Your task to perform on an android device: uninstall "Spotify: Music and Podcasts" Image 0: 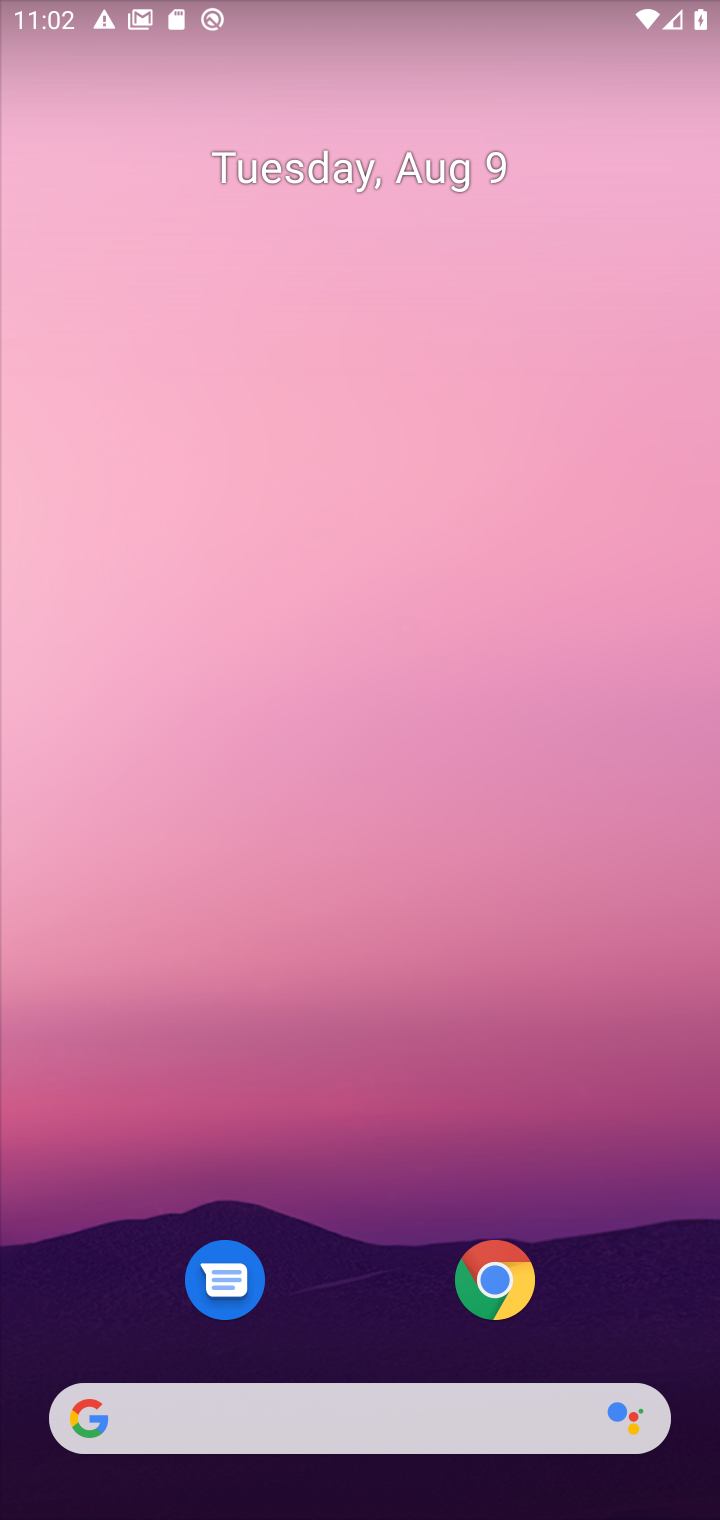
Step 0: drag from (431, 1332) to (382, 170)
Your task to perform on an android device: uninstall "Spotify: Music and Podcasts" Image 1: 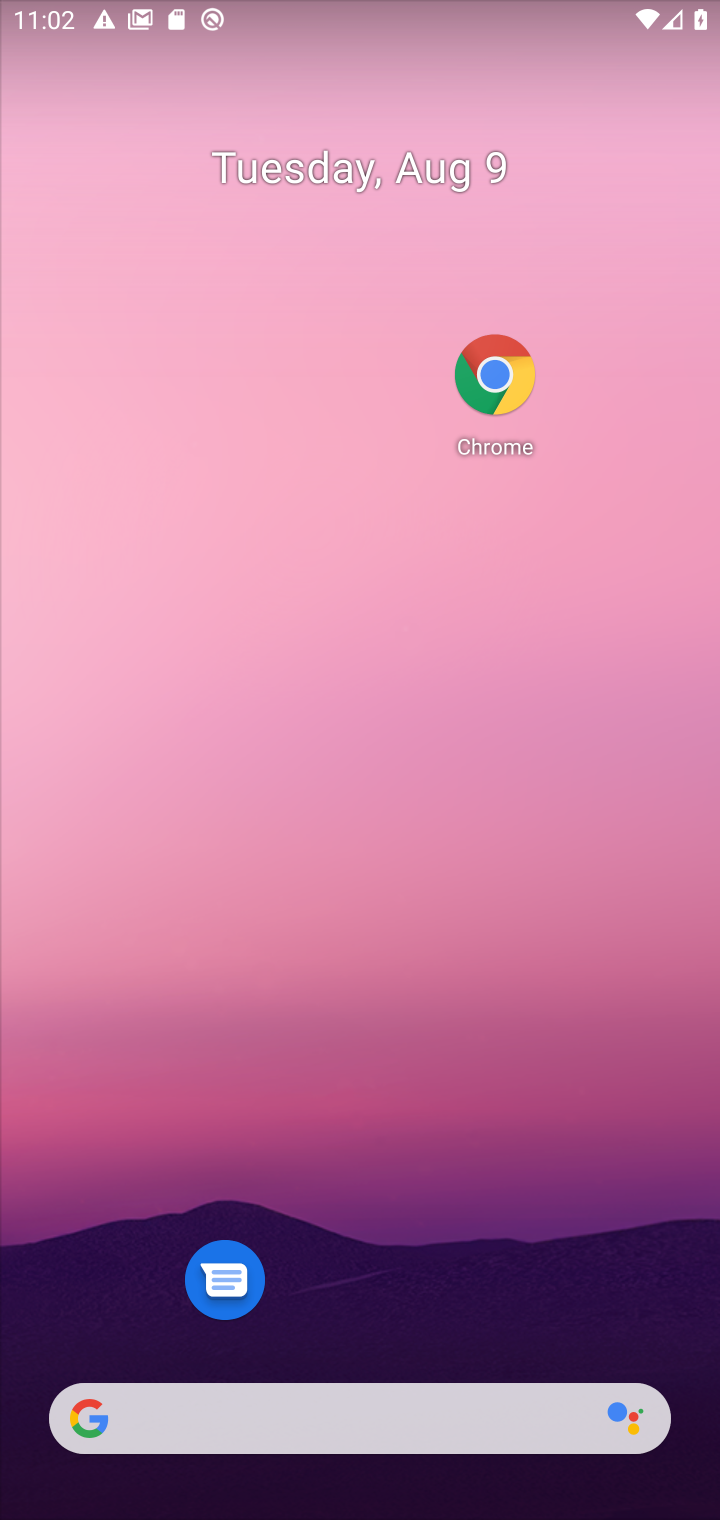
Step 1: drag from (420, 1306) to (328, 274)
Your task to perform on an android device: uninstall "Spotify: Music and Podcasts" Image 2: 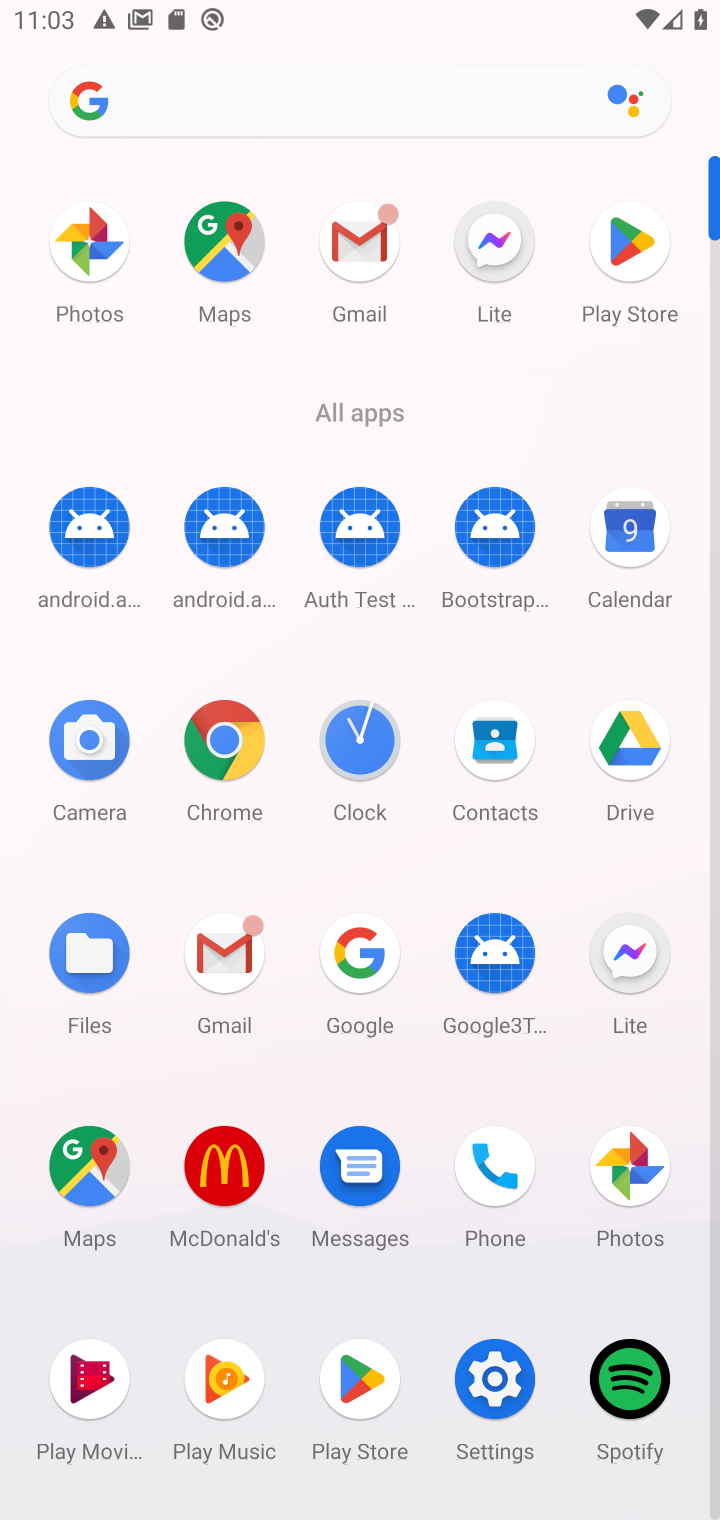
Step 2: click (643, 1386)
Your task to perform on an android device: uninstall "Spotify: Music and Podcasts" Image 3: 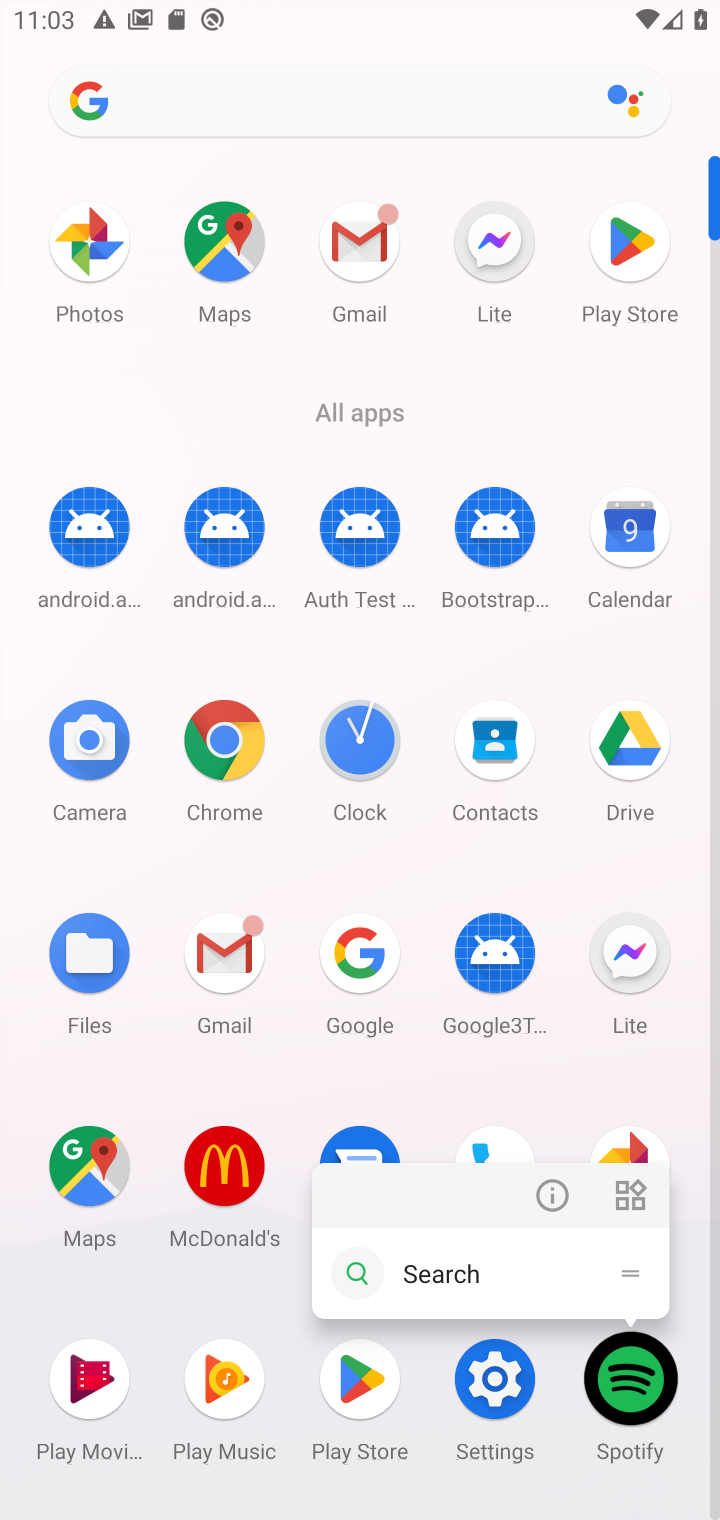
Step 3: click (534, 1195)
Your task to perform on an android device: uninstall "Spotify: Music and Podcasts" Image 4: 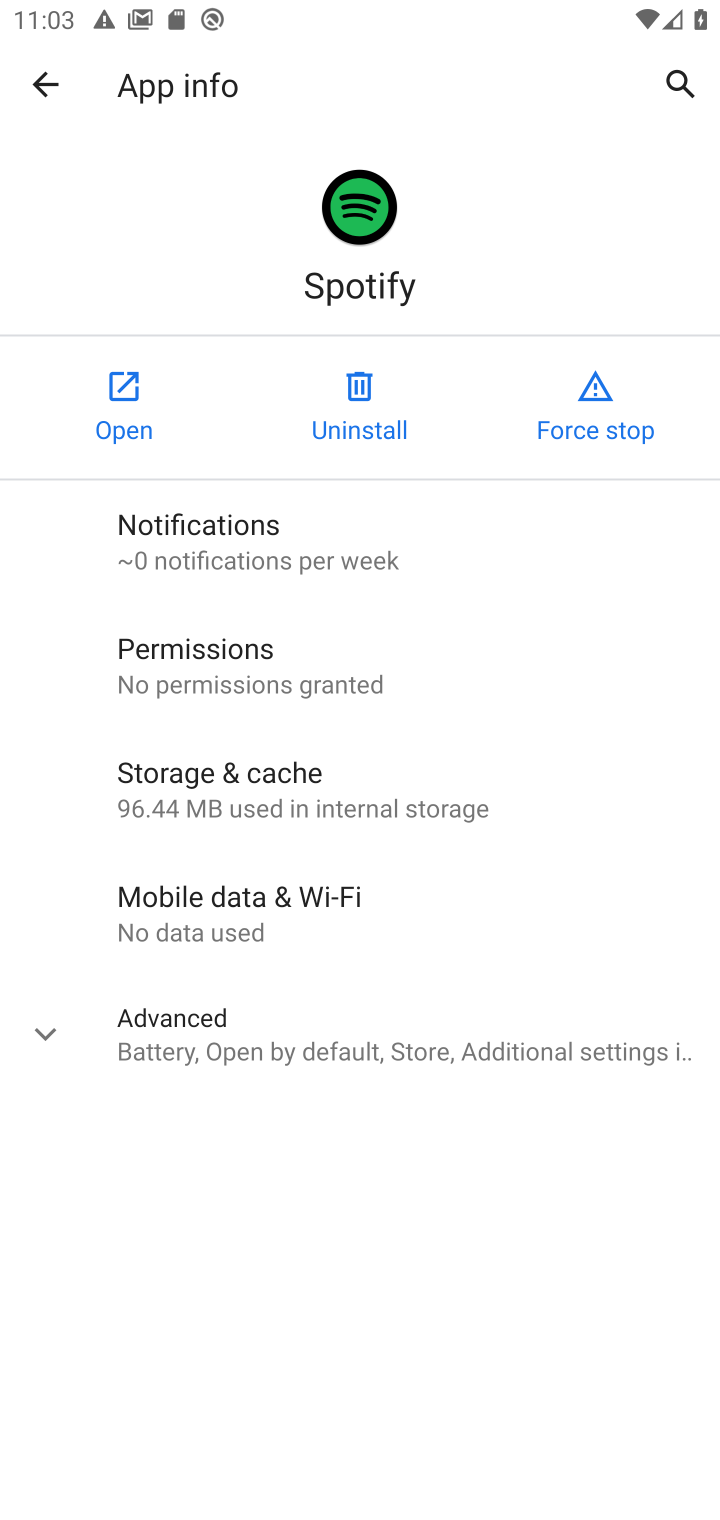
Step 4: click (361, 415)
Your task to perform on an android device: uninstall "Spotify: Music and Podcasts" Image 5: 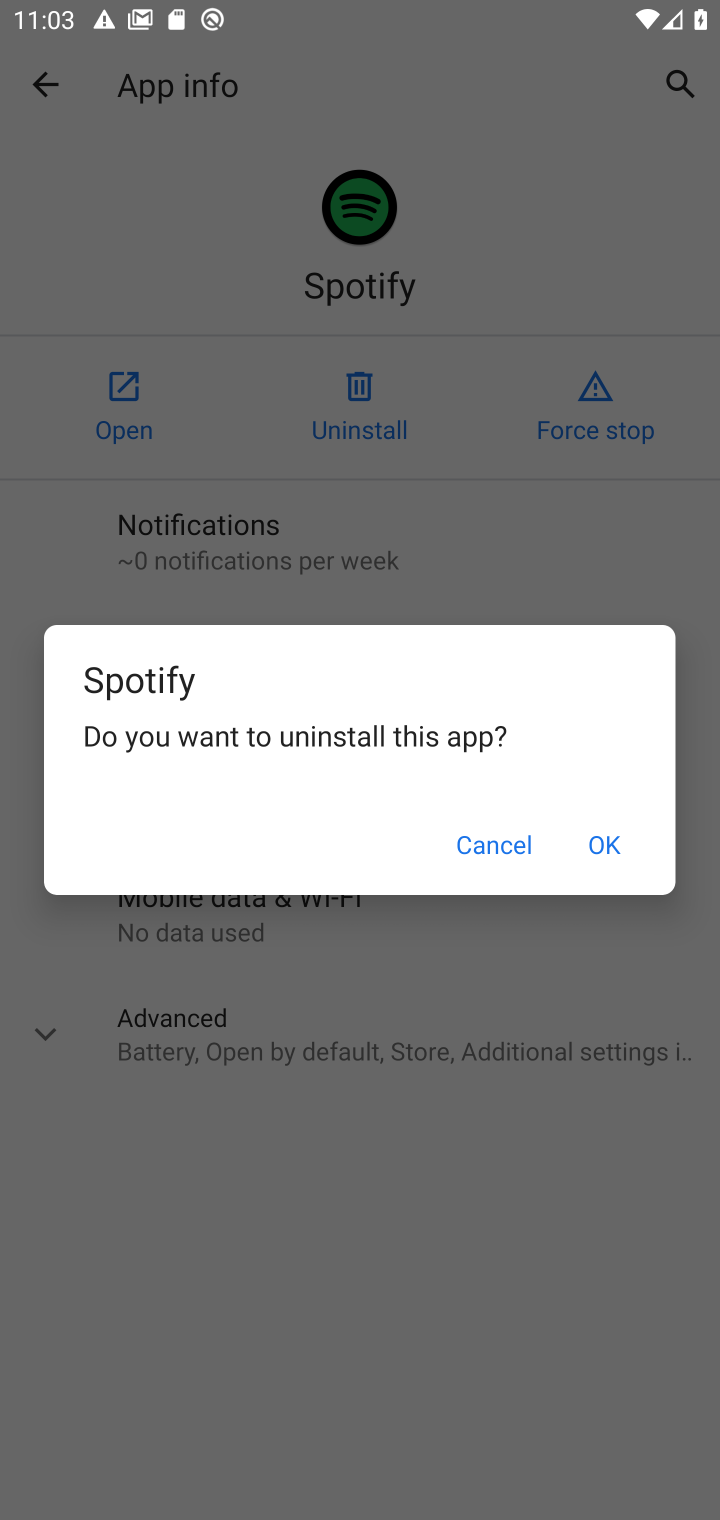
Step 5: click (616, 848)
Your task to perform on an android device: uninstall "Spotify: Music and Podcasts" Image 6: 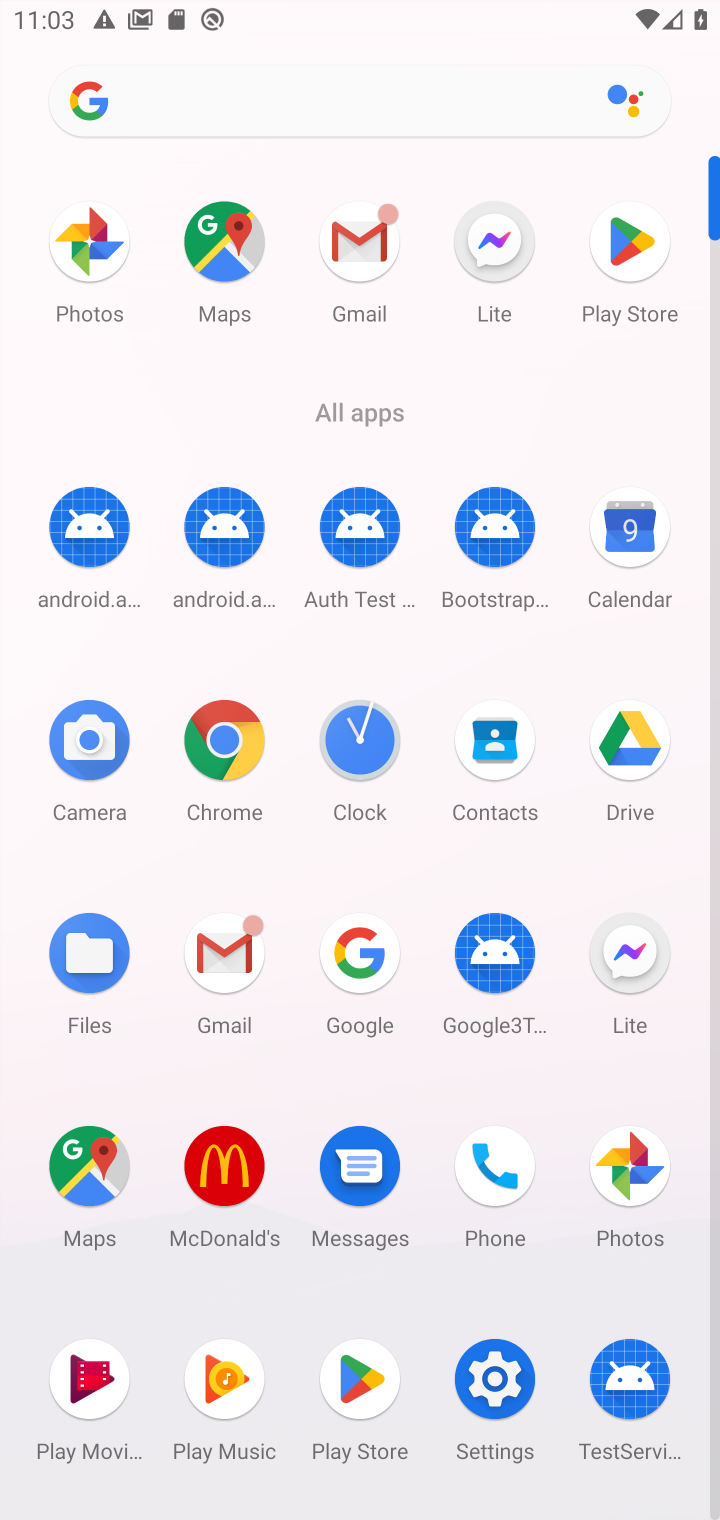
Step 6: click (357, 1373)
Your task to perform on an android device: uninstall "Spotify: Music and Podcasts" Image 7: 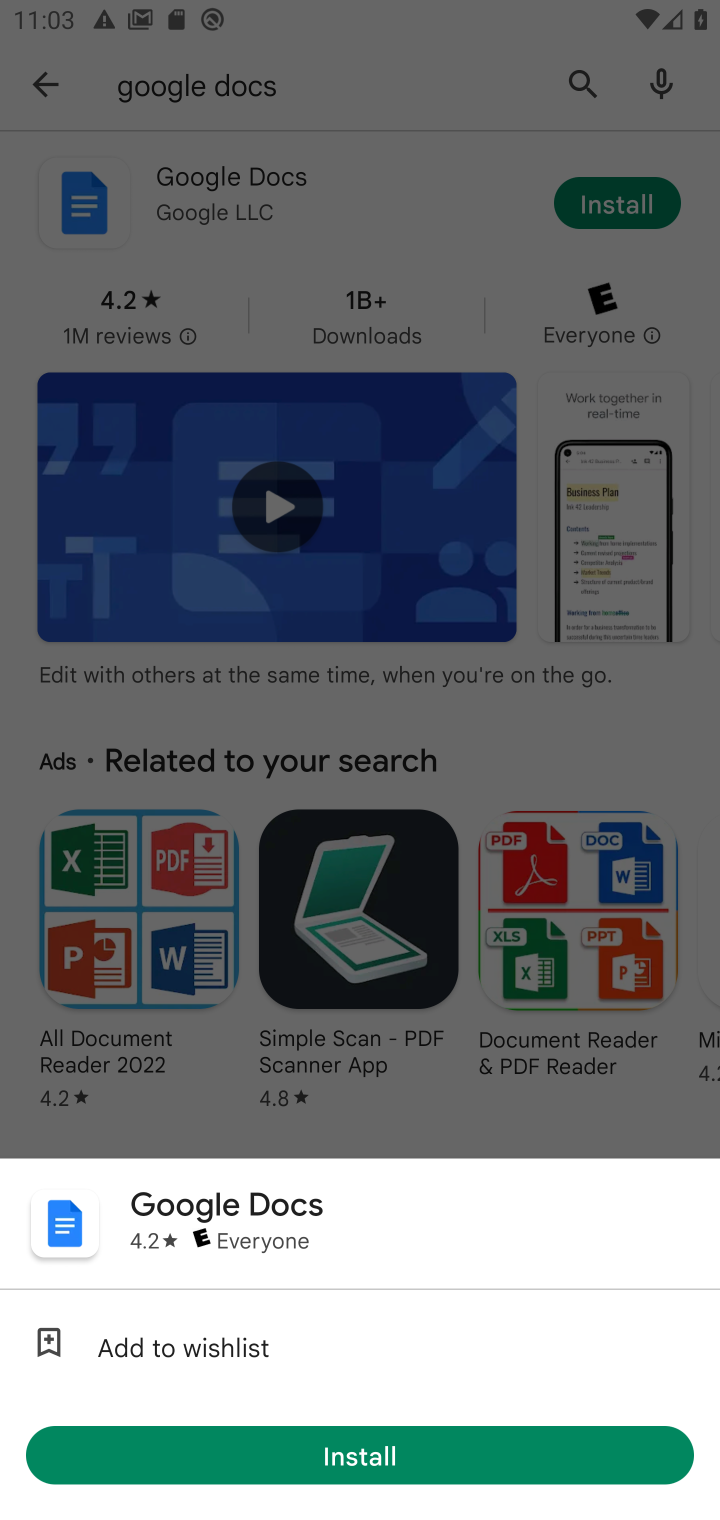
Step 7: click (35, 98)
Your task to perform on an android device: uninstall "Spotify: Music and Podcasts" Image 8: 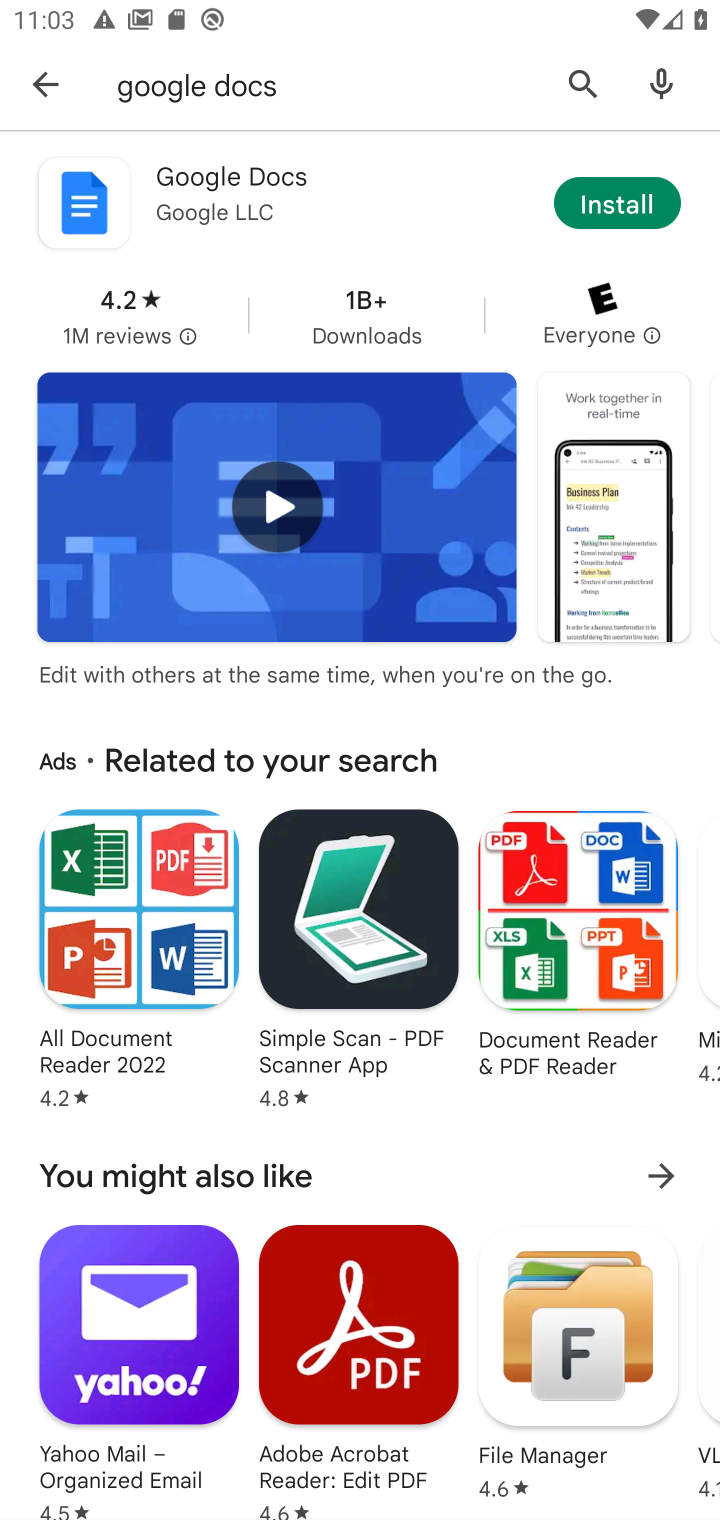
Step 8: click (35, 98)
Your task to perform on an android device: uninstall "Spotify: Music and Podcasts" Image 9: 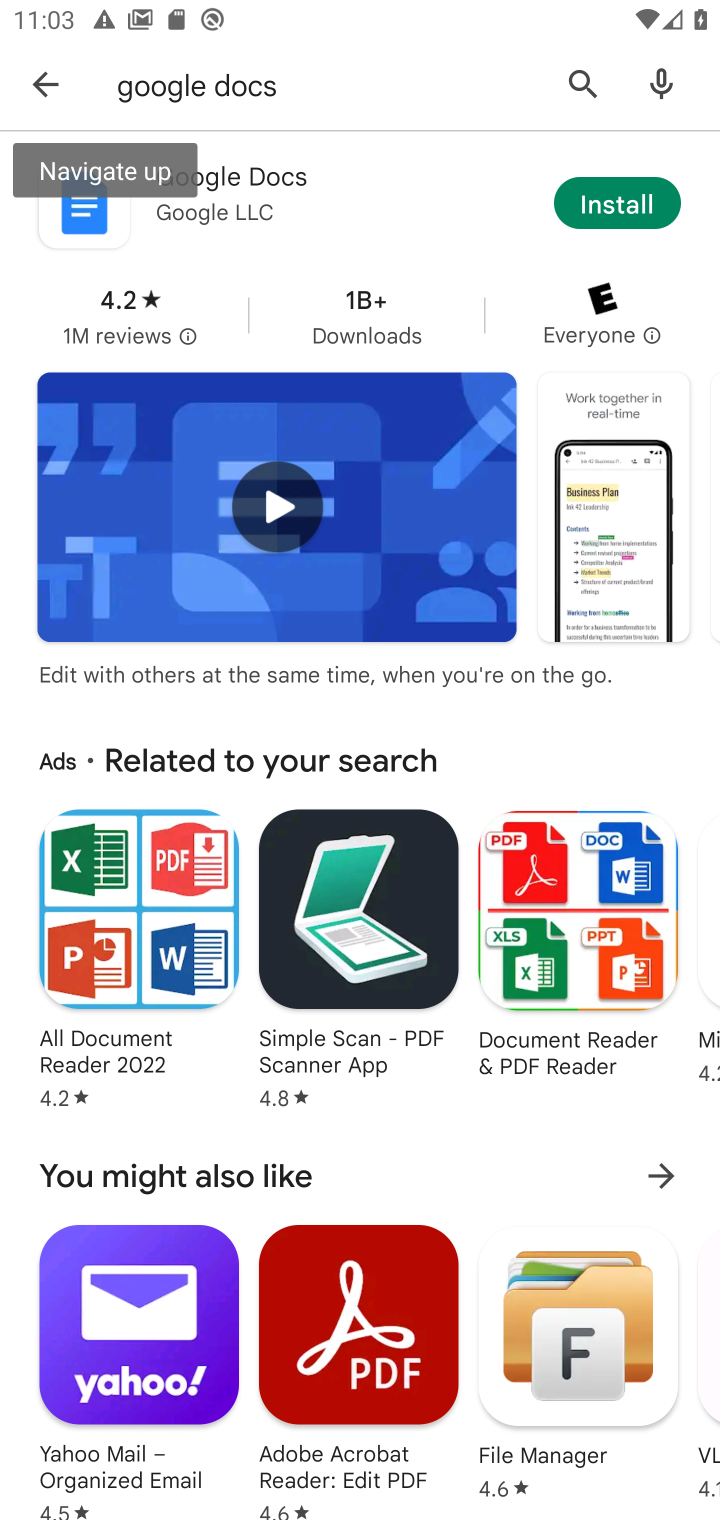
Step 9: click (42, 89)
Your task to perform on an android device: uninstall "Spotify: Music and Podcasts" Image 10: 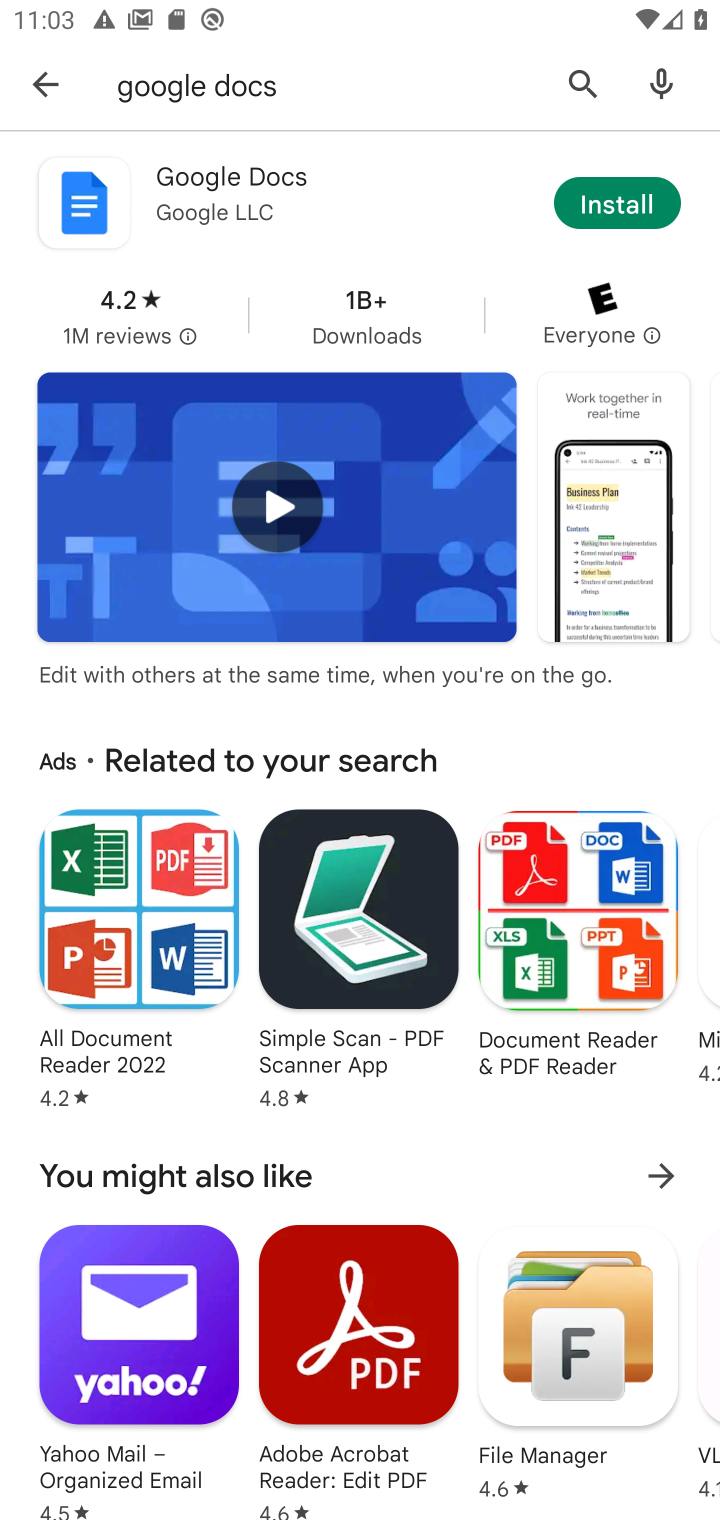
Step 10: click (572, 66)
Your task to perform on an android device: uninstall "Spotify: Music and Podcasts" Image 11: 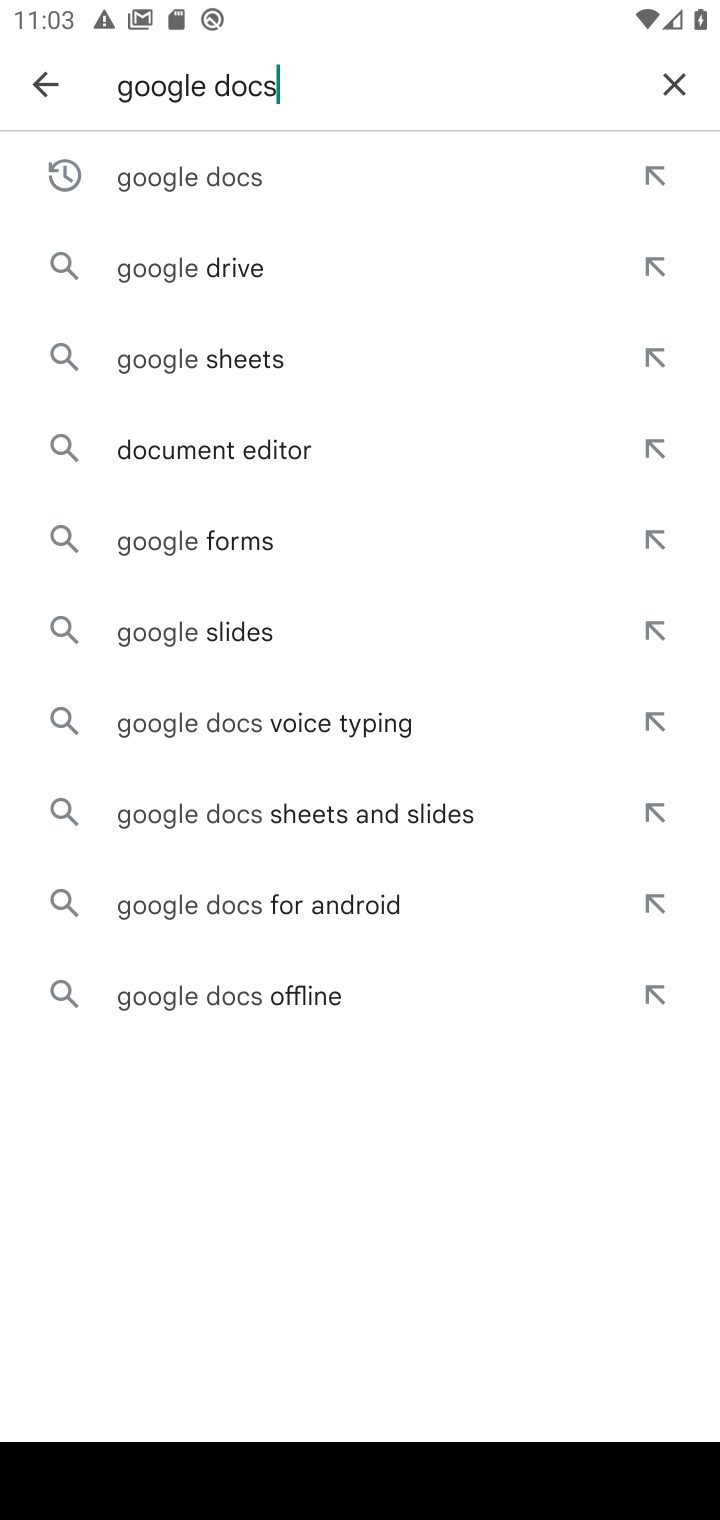
Step 11: click (669, 93)
Your task to perform on an android device: uninstall "Spotify: Music and Podcasts" Image 12: 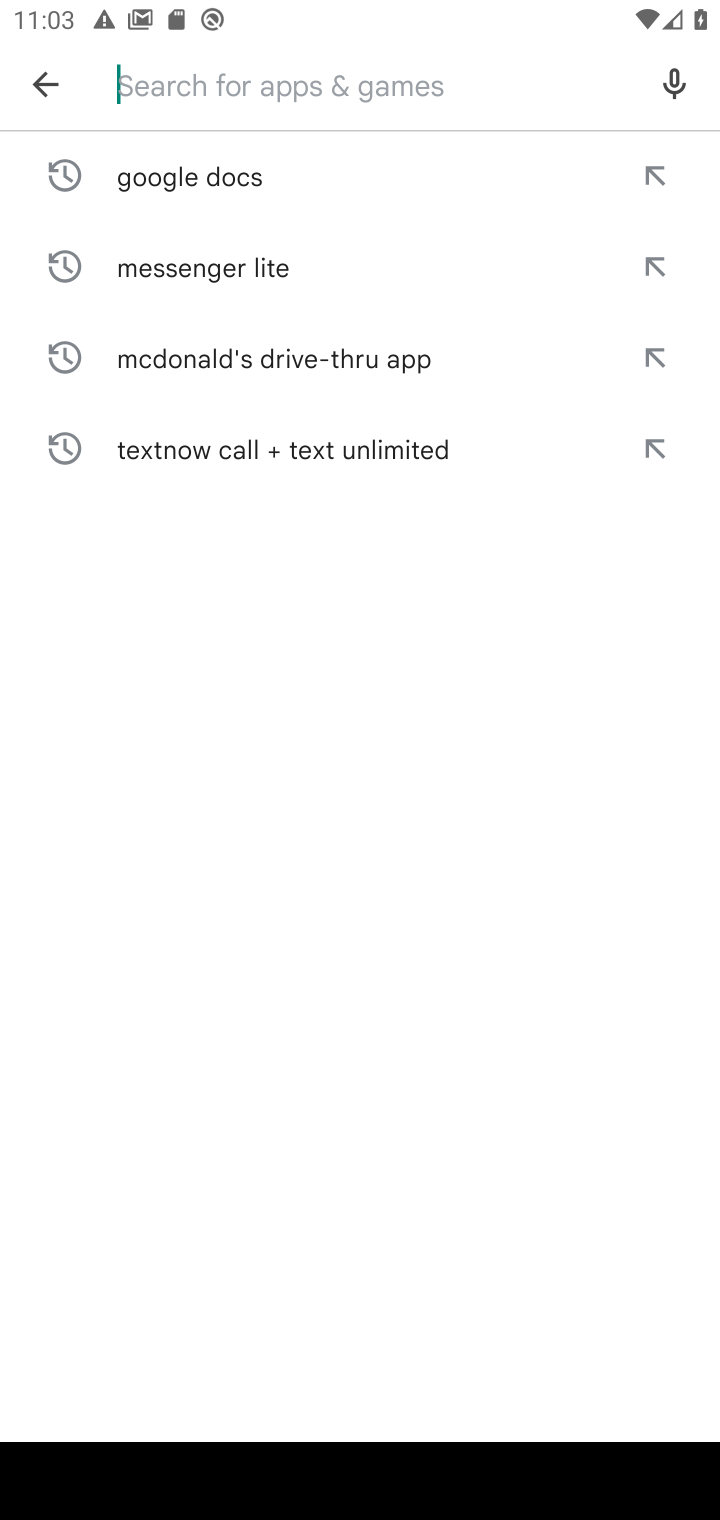
Step 12: type "Spotify"
Your task to perform on an android device: uninstall "Spotify: Music and Podcasts" Image 13: 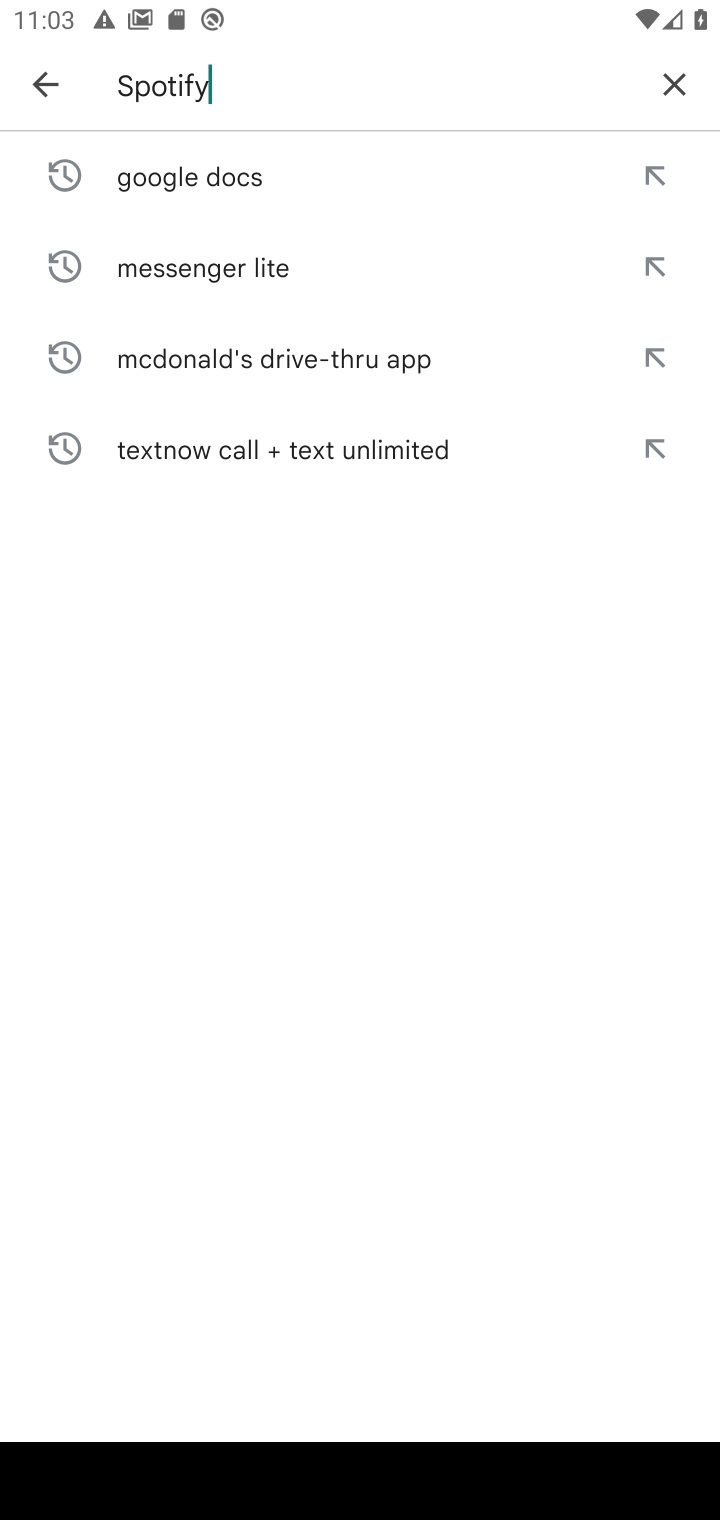
Step 13: type ""
Your task to perform on an android device: uninstall "Spotify: Music and Podcasts" Image 14: 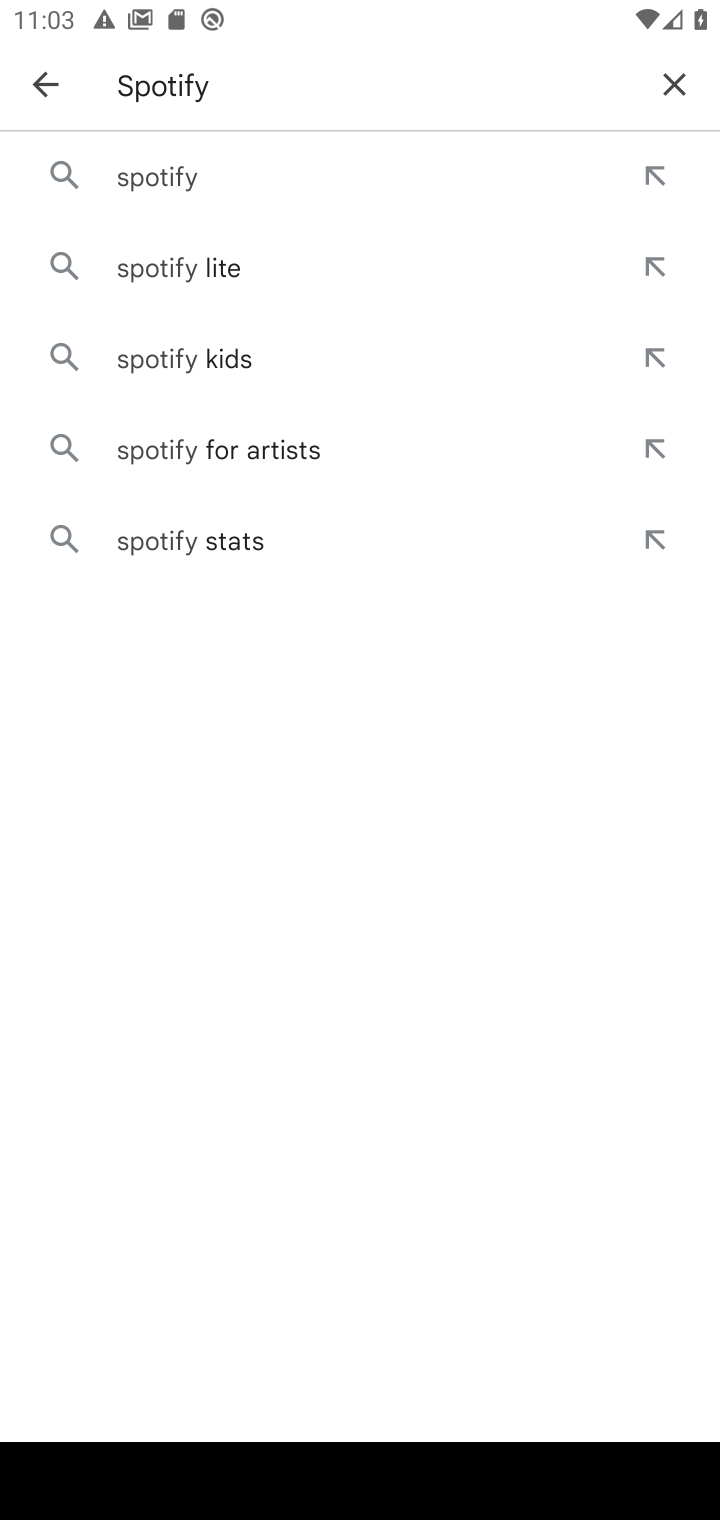
Step 14: click (143, 197)
Your task to perform on an android device: uninstall "Spotify: Music and Podcasts" Image 15: 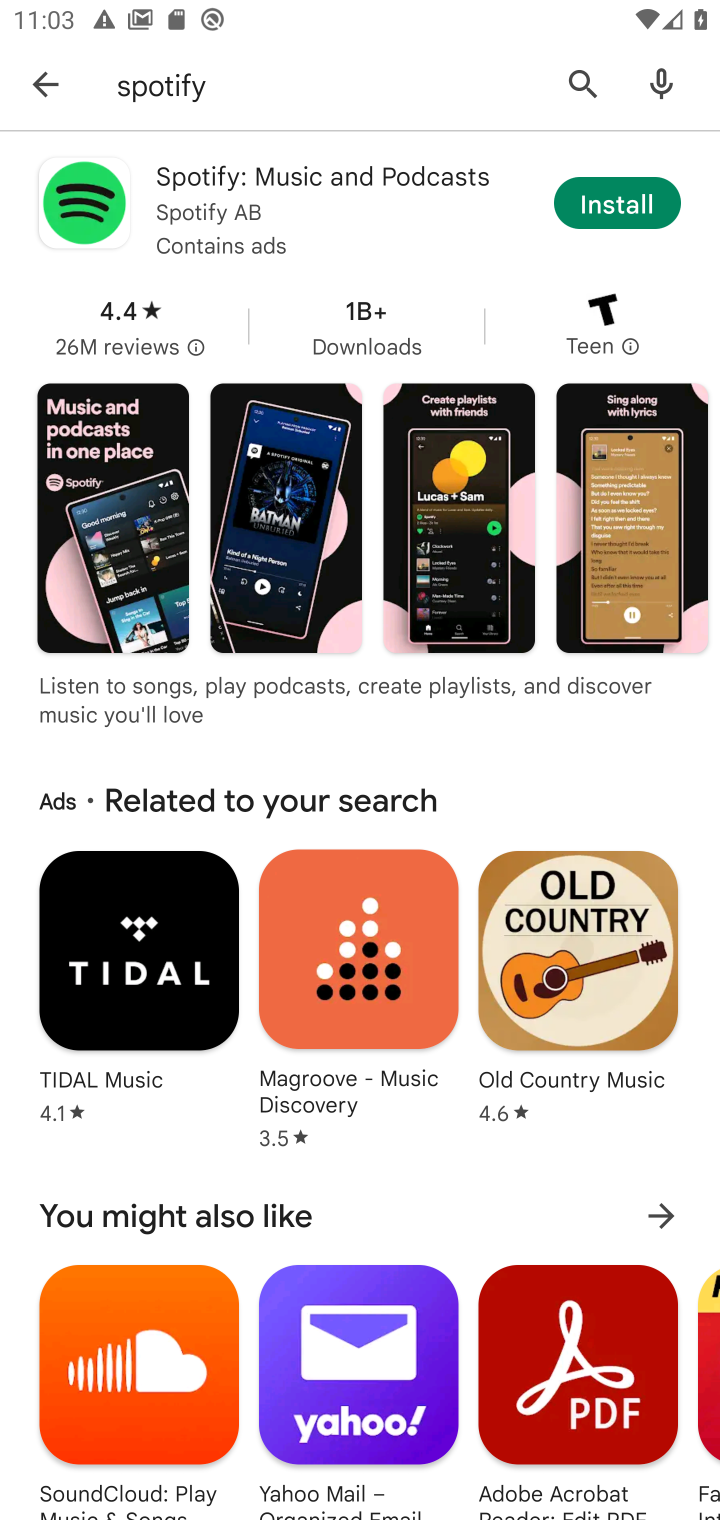
Step 15: task complete